Your task to perform on an android device: Google the capital of Mexico Image 0: 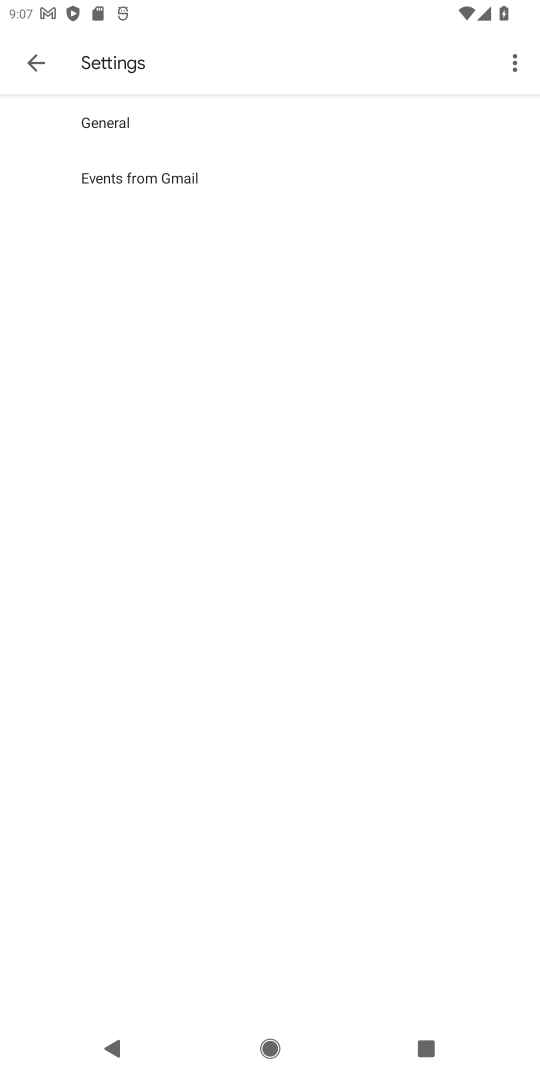
Step 0: press home button
Your task to perform on an android device: Google the capital of Mexico Image 1: 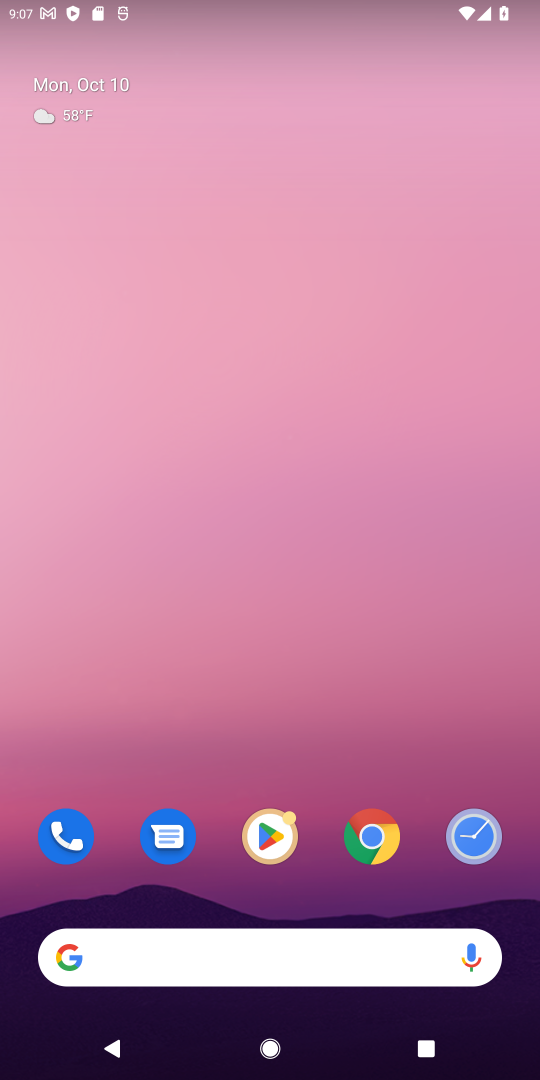
Step 1: drag from (241, 937) to (369, 129)
Your task to perform on an android device: Google the capital of Mexico Image 2: 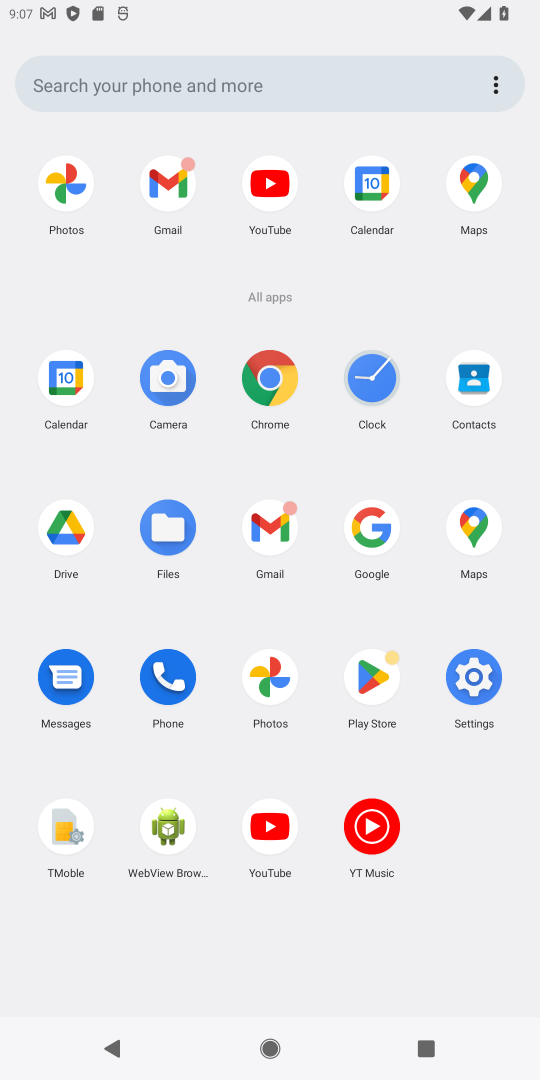
Step 2: click (383, 519)
Your task to perform on an android device: Google the capital of Mexico Image 3: 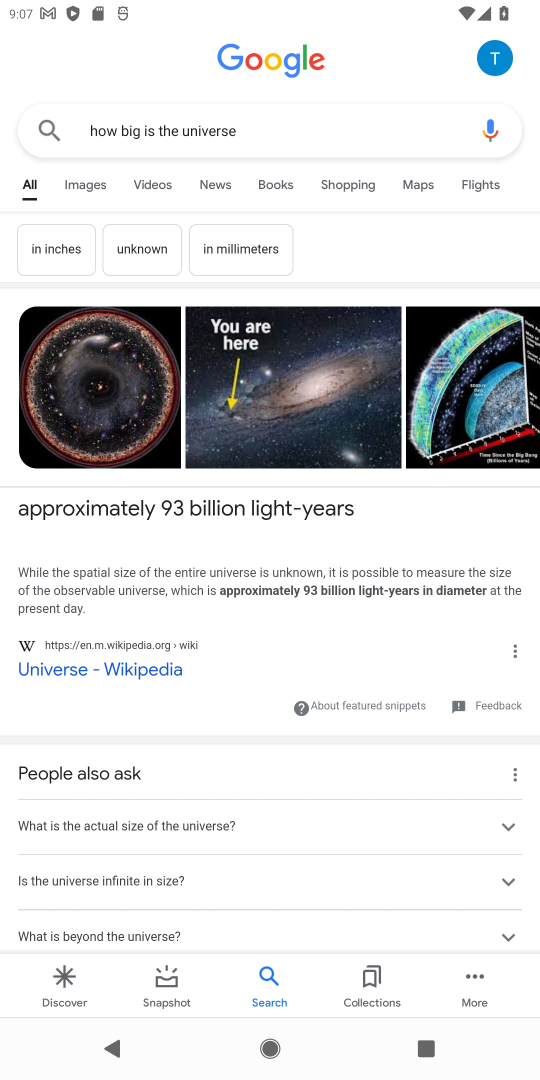
Step 3: click (214, 142)
Your task to perform on an android device: Google the capital of Mexico Image 4: 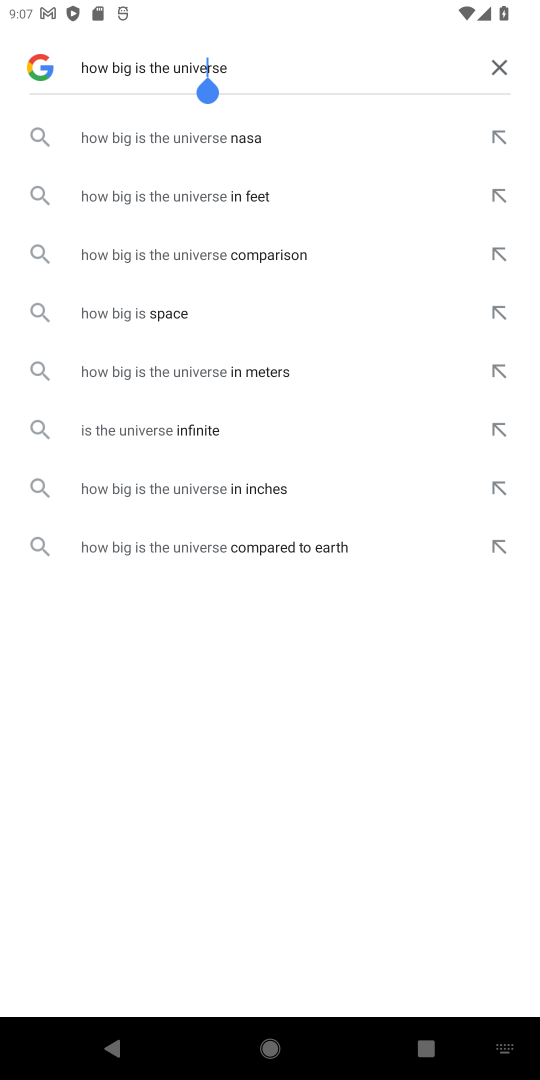
Step 4: click (489, 60)
Your task to perform on an android device: Google the capital of Mexico Image 5: 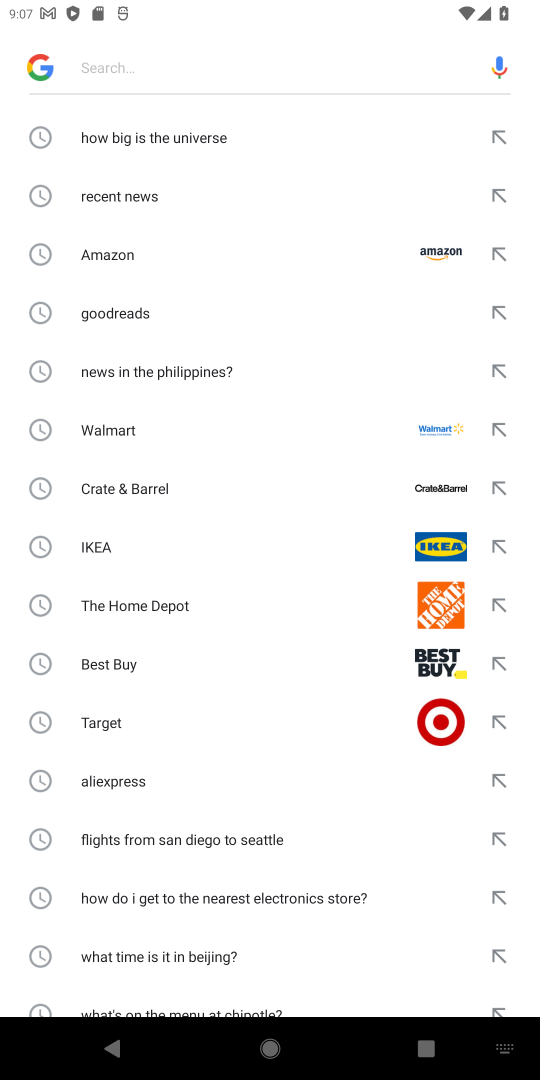
Step 5: type "Google the capital of Mexico"
Your task to perform on an android device: Google the capital of Mexico Image 6: 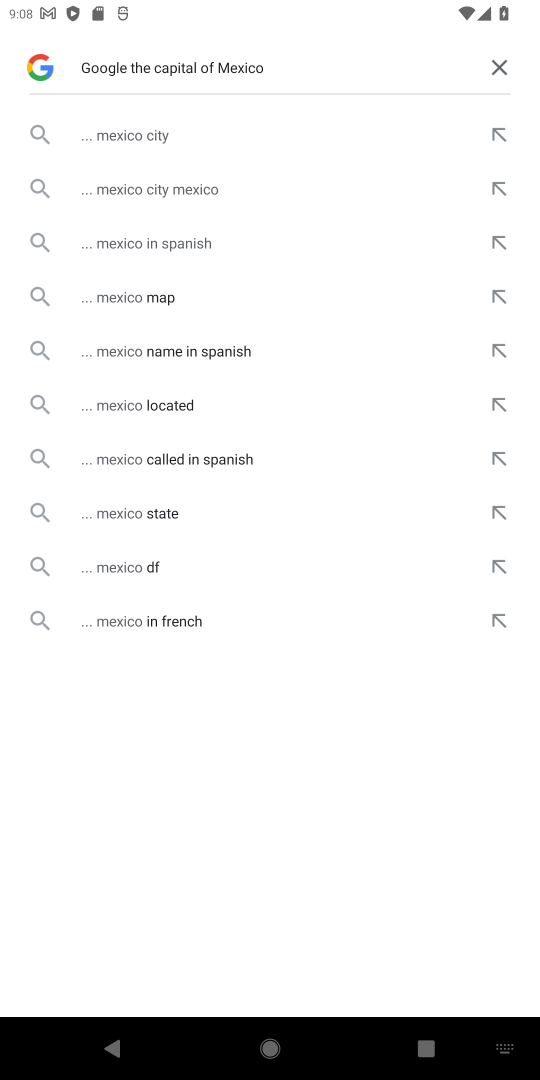
Step 6: click (135, 143)
Your task to perform on an android device: Google the capital of Mexico Image 7: 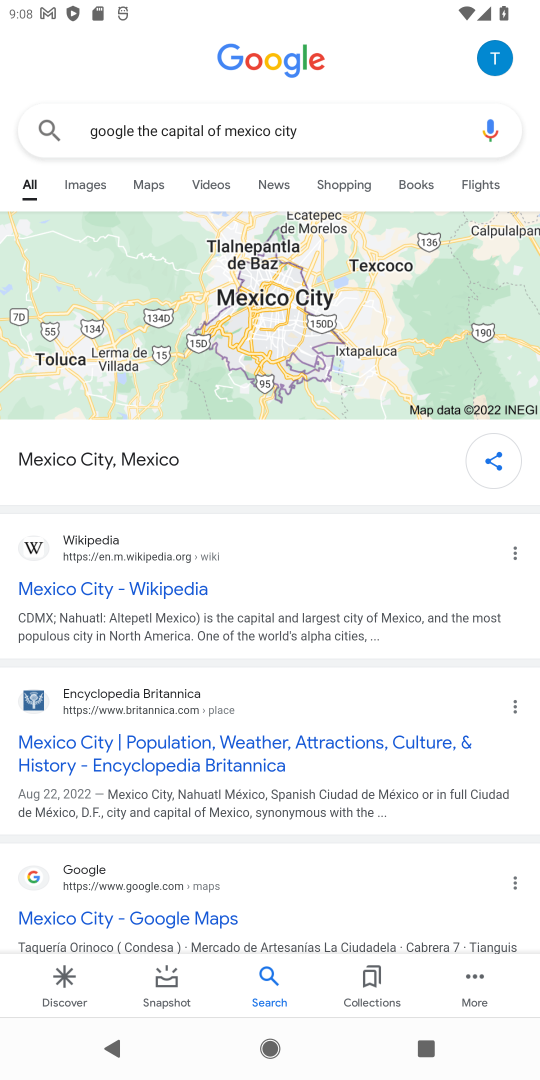
Step 7: click (153, 593)
Your task to perform on an android device: Google the capital of Mexico Image 8: 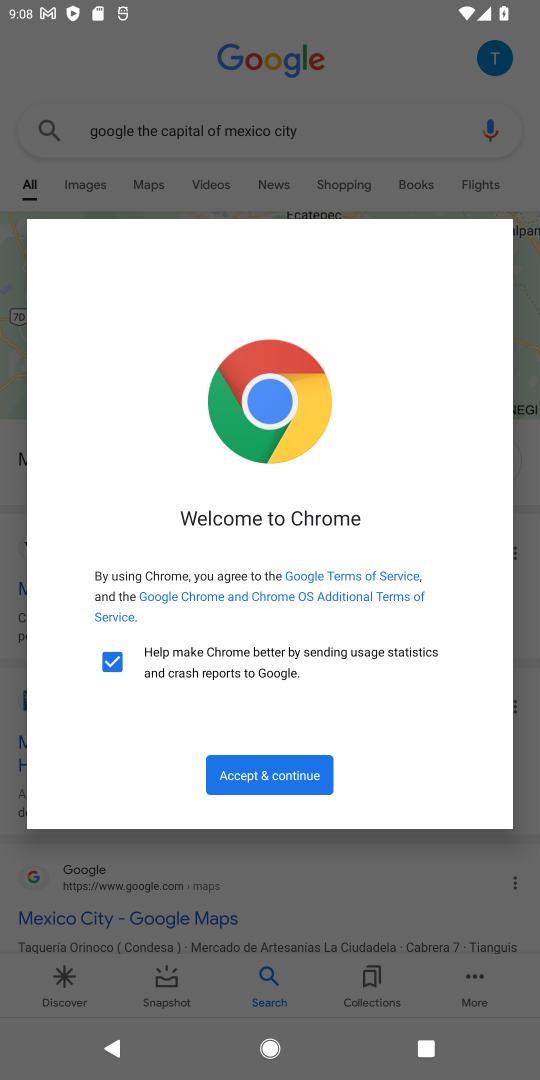
Step 8: click (296, 789)
Your task to perform on an android device: Google the capital of Mexico Image 9: 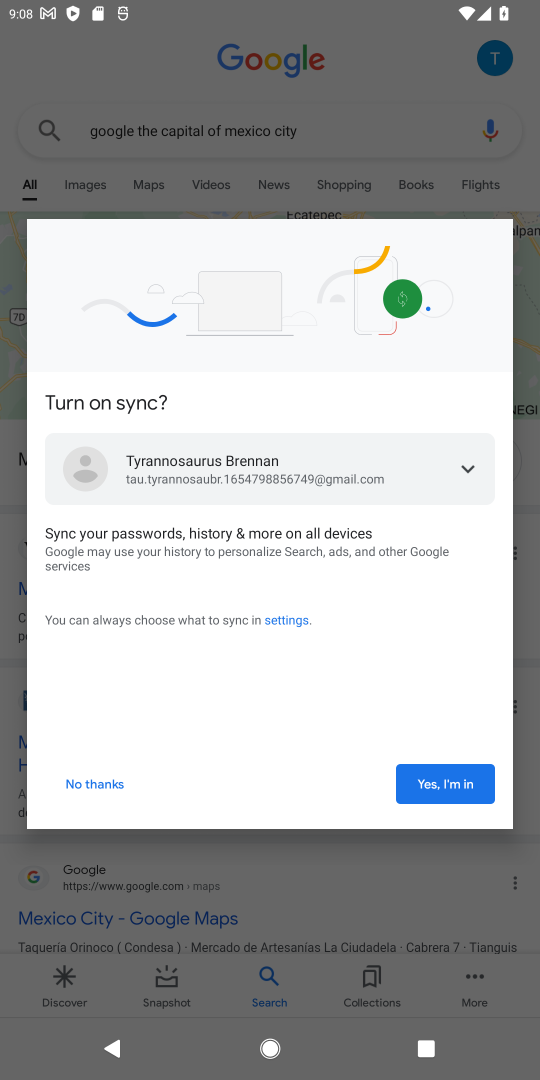
Step 9: click (461, 791)
Your task to perform on an android device: Google the capital of Mexico Image 10: 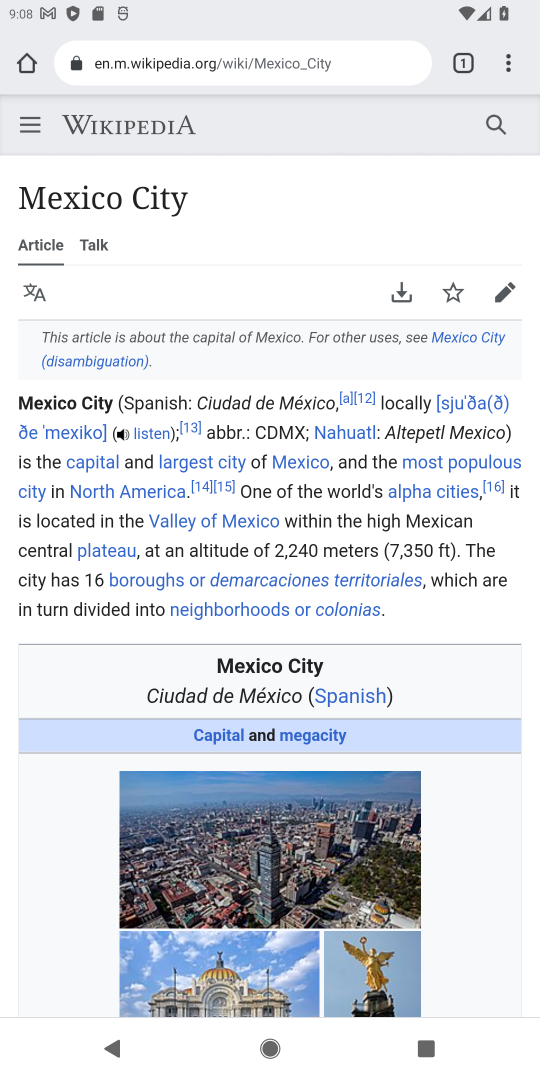
Step 10: task complete